Your task to perform on an android device: Open the calendar app, open the side menu, and click the "Day" option Image 0: 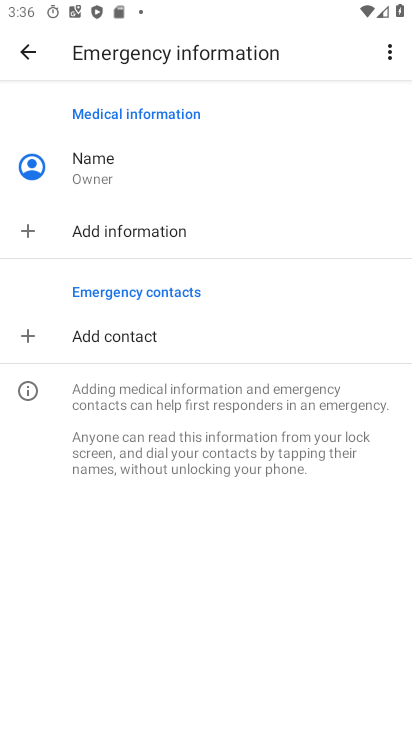
Step 0: press home button
Your task to perform on an android device: Open the calendar app, open the side menu, and click the "Day" option Image 1: 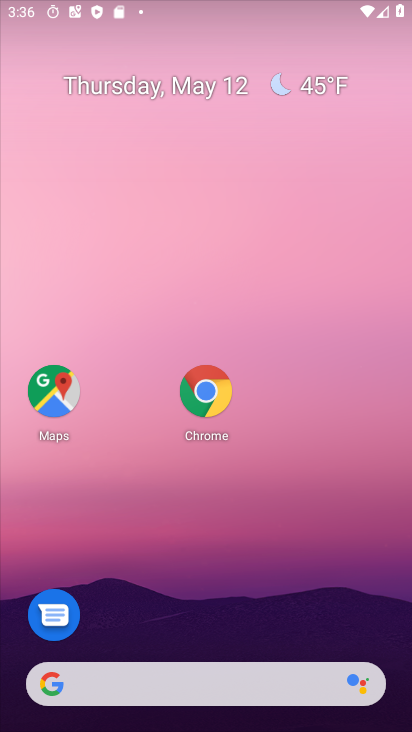
Step 1: drag from (221, 562) to (170, 92)
Your task to perform on an android device: Open the calendar app, open the side menu, and click the "Day" option Image 2: 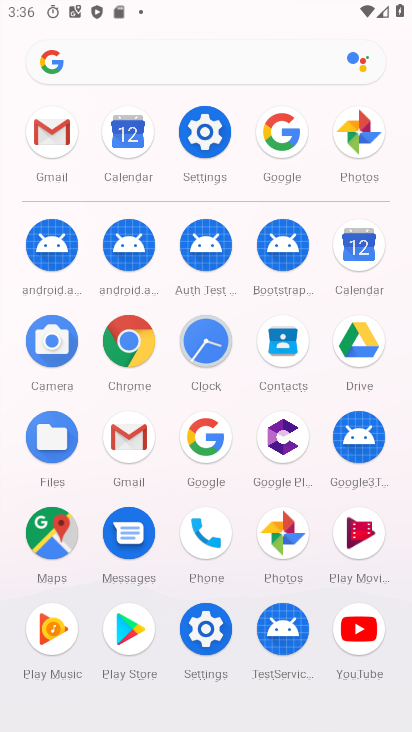
Step 2: click (364, 248)
Your task to perform on an android device: Open the calendar app, open the side menu, and click the "Day" option Image 3: 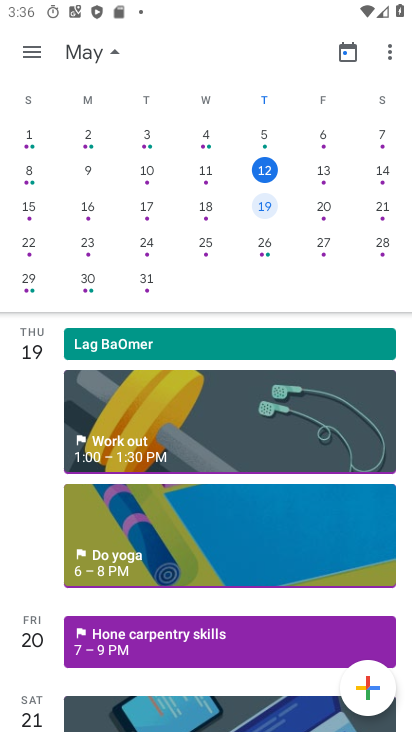
Step 3: click (262, 165)
Your task to perform on an android device: Open the calendar app, open the side menu, and click the "Day" option Image 4: 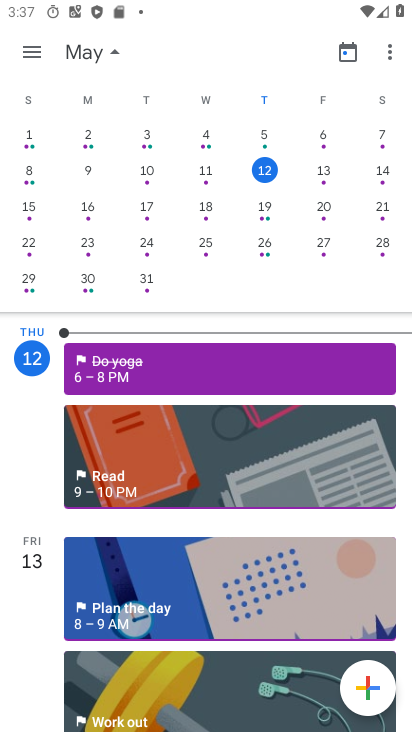
Step 4: click (36, 49)
Your task to perform on an android device: Open the calendar app, open the side menu, and click the "Day" option Image 5: 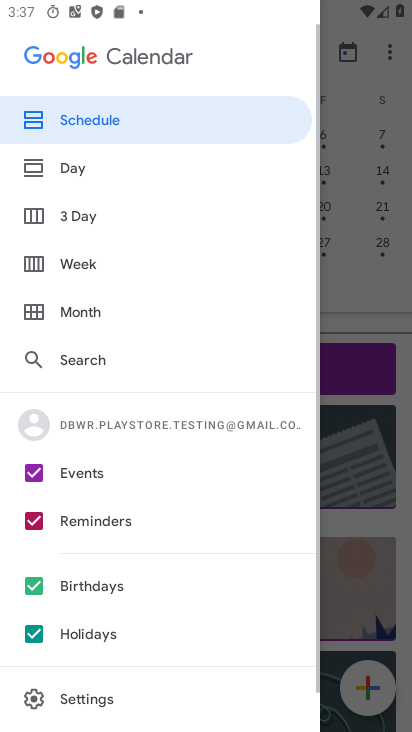
Step 5: click (98, 164)
Your task to perform on an android device: Open the calendar app, open the side menu, and click the "Day" option Image 6: 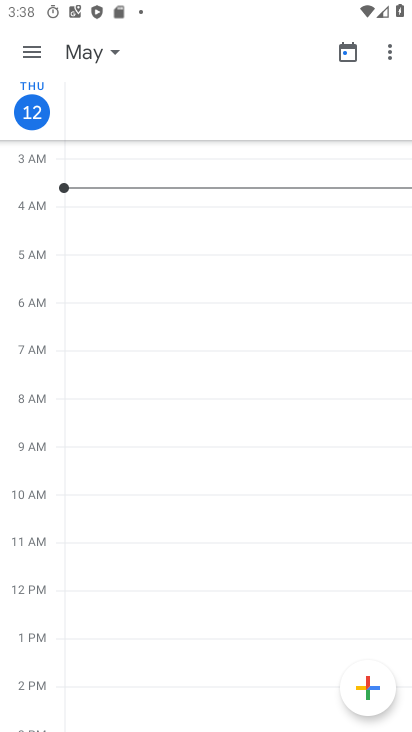
Step 6: task complete